Your task to perform on an android device: Search for apple airpods on target, select the first entry, add it to the cart, then select checkout. Image 0: 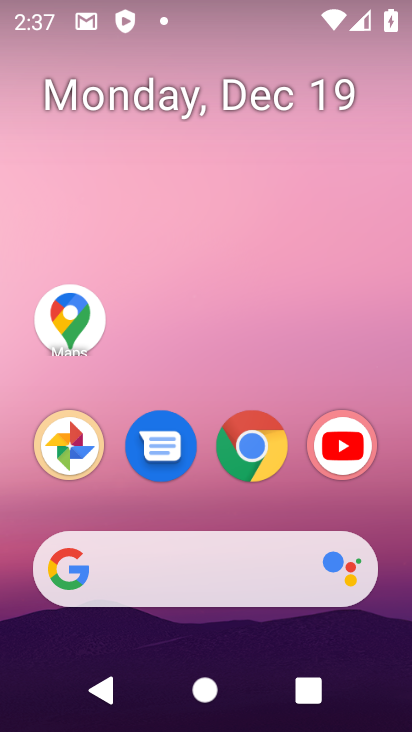
Step 0: task complete